Your task to perform on an android device: Open calendar and show me the second week of next month Image 0: 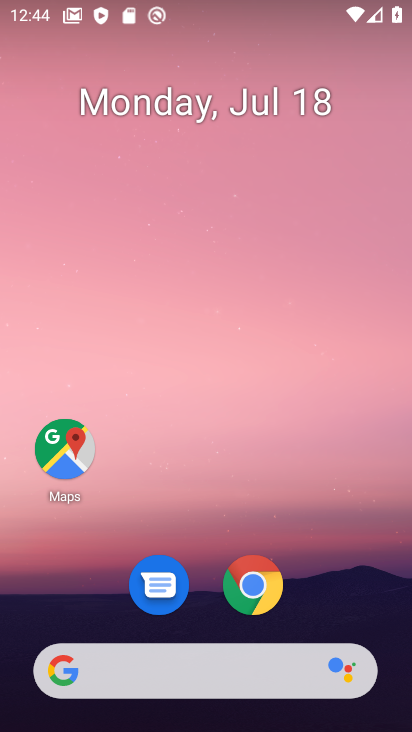
Step 0: press home button
Your task to perform on an android device: Open calendar and show me the second week of next month Image 1: 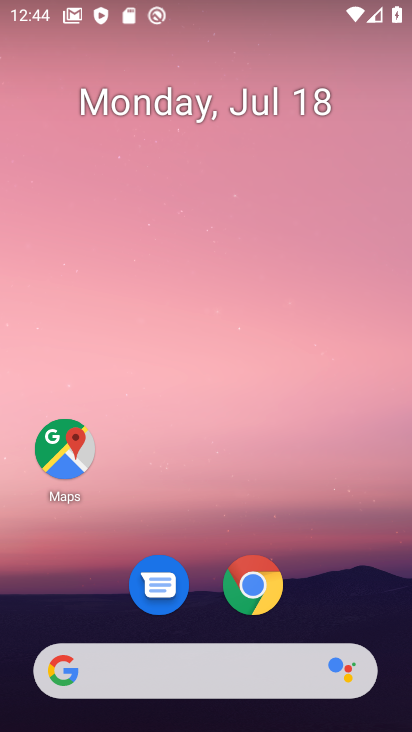
Step 1: drag from (175, 674) to (261, 173)
Your task to perform on an android device: Open calendar and show me the second week of next month Image 2: 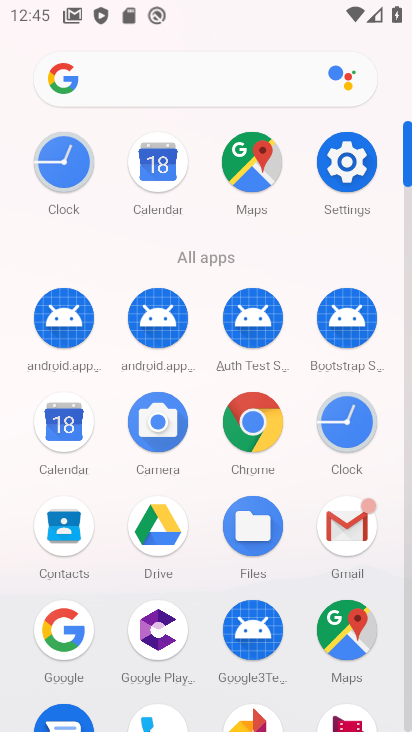
Step 2: click (64, 438)
Your task to perform on an android device: Open calendar and show me the second week of next month Image 3: 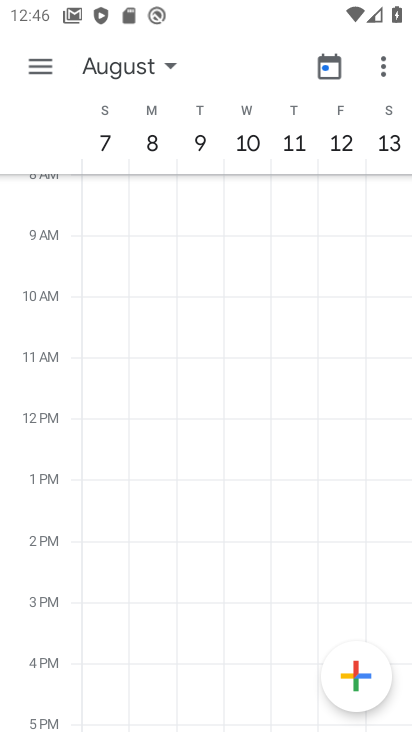
Step 3: task complete